Your task to perform on an android device: stop showing notifications on the lock screen Image 0: 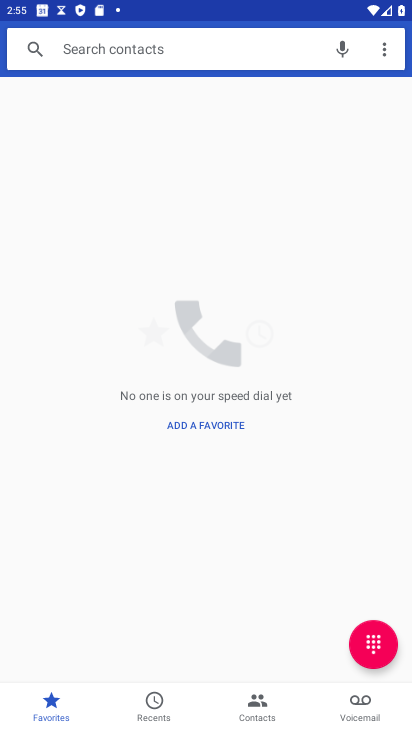
Step 0: press home button
Your task to perform on an android device: stop showing notifications on the lock screen Image 1: 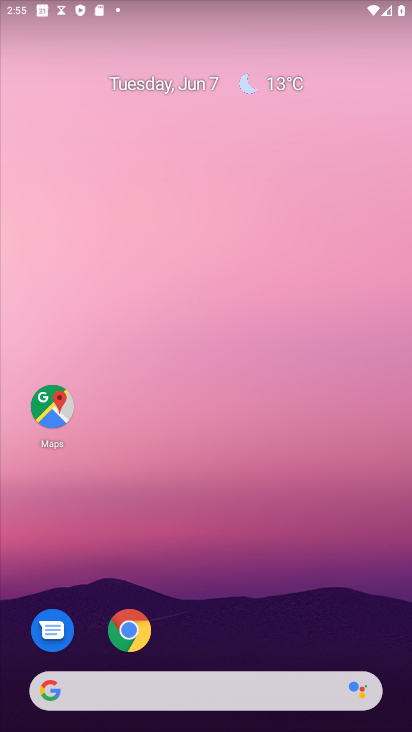
Step 1: drag from (194, 684) to (355, 148)
Your task to perform on an android device: stop showing notifications on the lock screen Image 2: 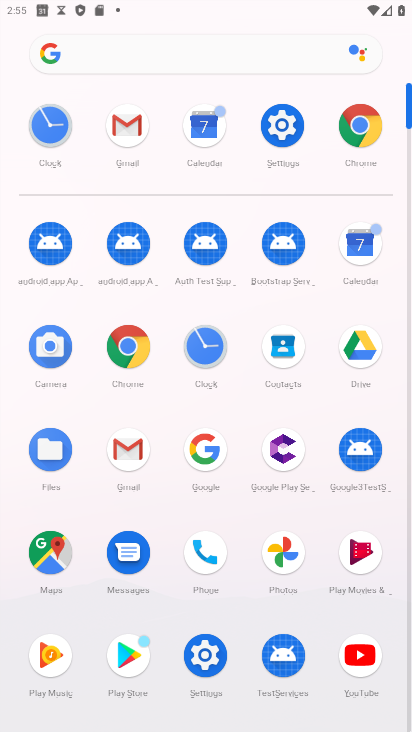
Step 2: click (274, 127)
Your task to perform on an android device: stop showing notifications on the lock screen Image 3: 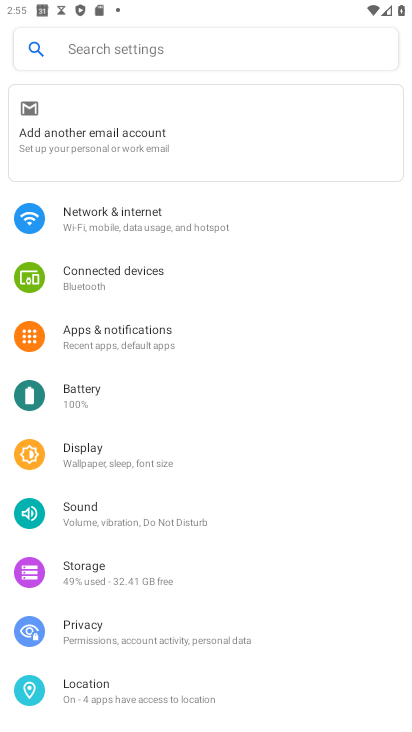
Step 3: click (154, 327)
Your task to perform on an android device: stop showing notifications on the lock screen Image 4: 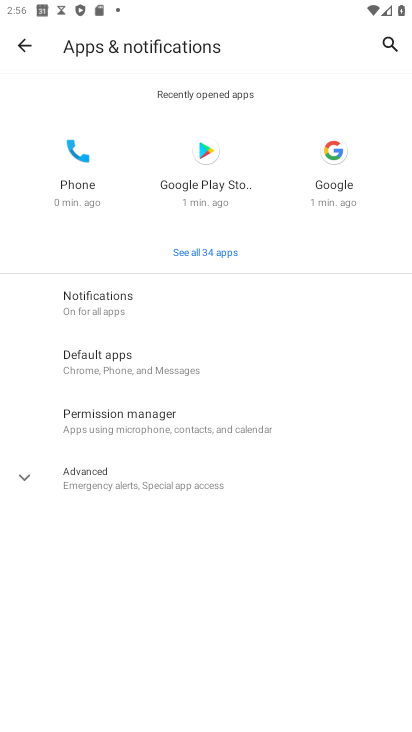
Step 4: click (110, 305)
Your task to perform on an android device: stop showing notifications on the lock screen Image 5: 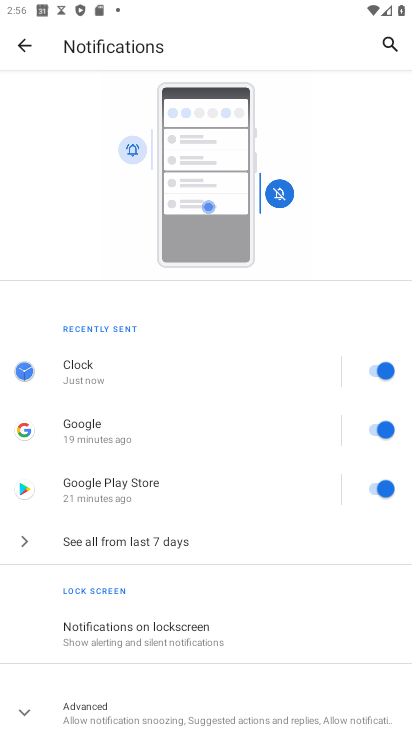
Step 5: click (150, 640)
Your task to perform on an android device: stop showing notifications on the lock screen Image 6: 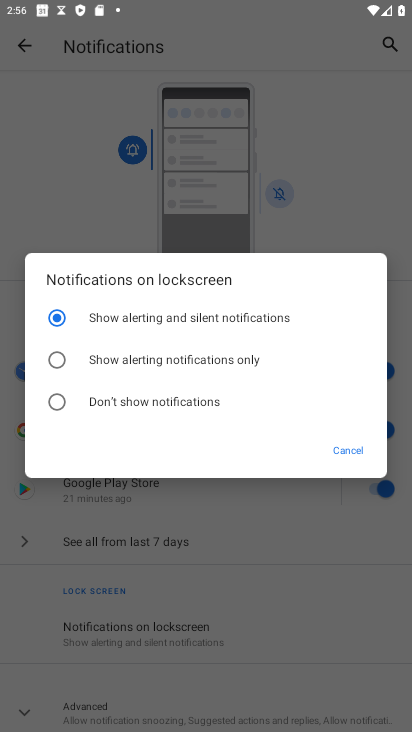
Step 6: click (91, 408)
Your task to perform on an android device: stop showing notifications on the lock screen Image 7: 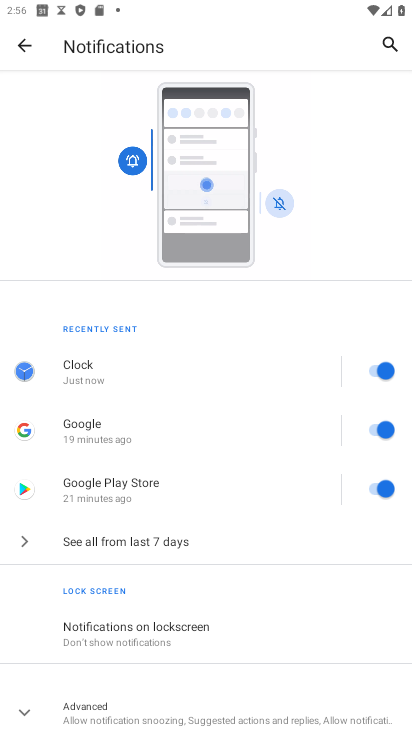
Step 7: task complete